Your task to perform on an android device: Open maps Image 0: 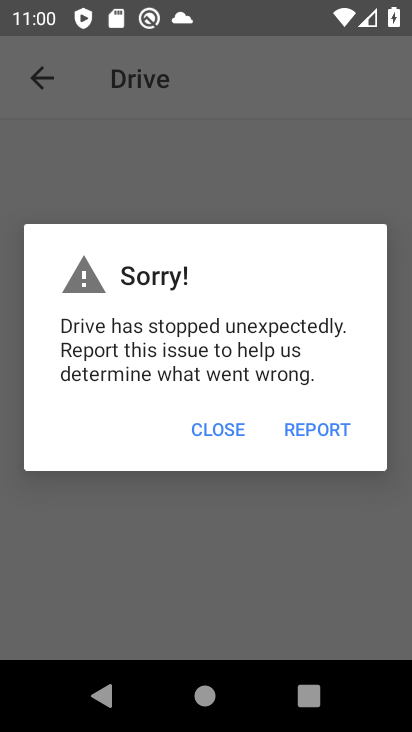
Step 0: press home button
Your task to perform on an android device: Open maps Image 1: 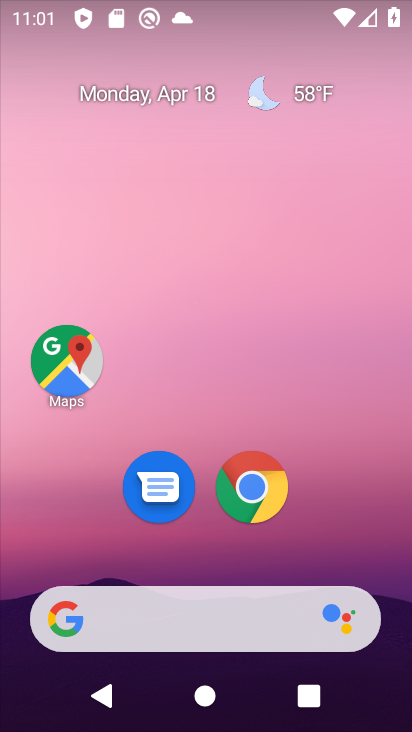
Step 1: click (71, 380)
Your task to perform on an android device: Open maps Image 2: 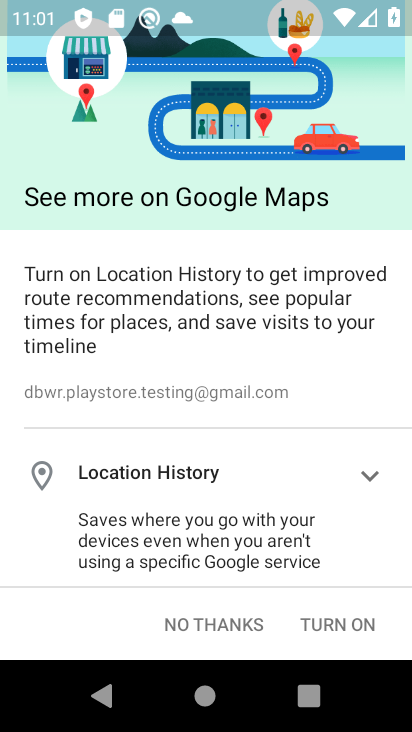
Step 2: click (262, 615)
Your task to perform on an android device: Open maps Image 3: 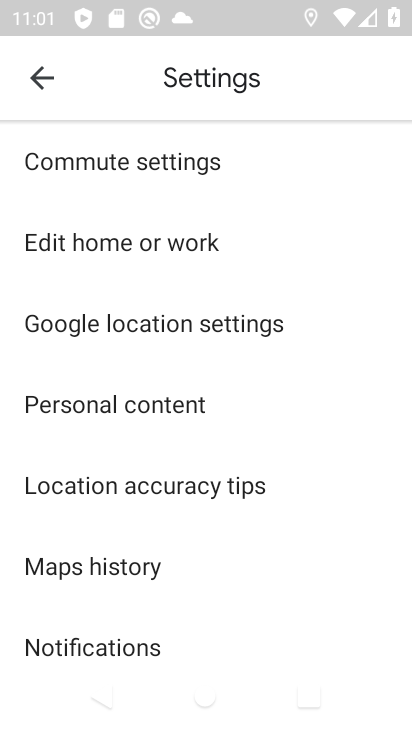
Step 3: click (39, 92)
Your task to perform on an android device: Open maps Image 4: 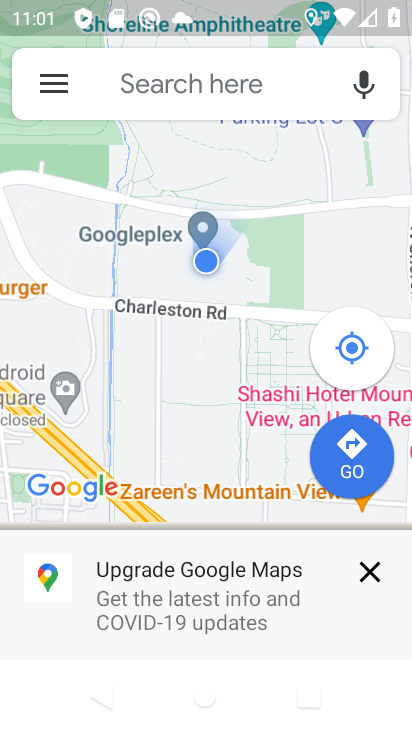
Step 4: task complete